Your task to perform on an android device: Open settings Image 0: 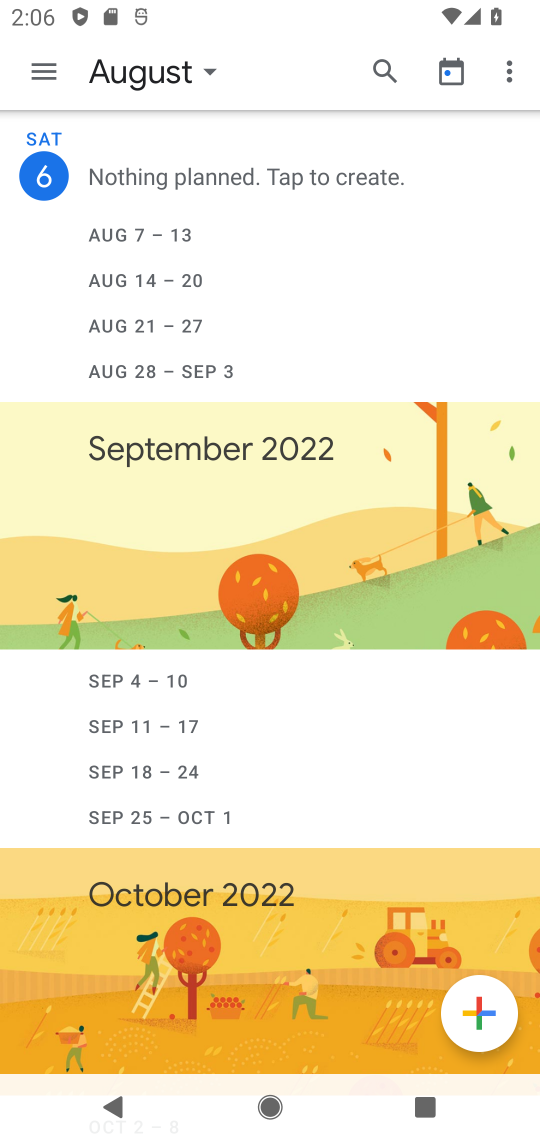
Step 0: press home button
Your task to perform on an android device: Open settings Image 1: 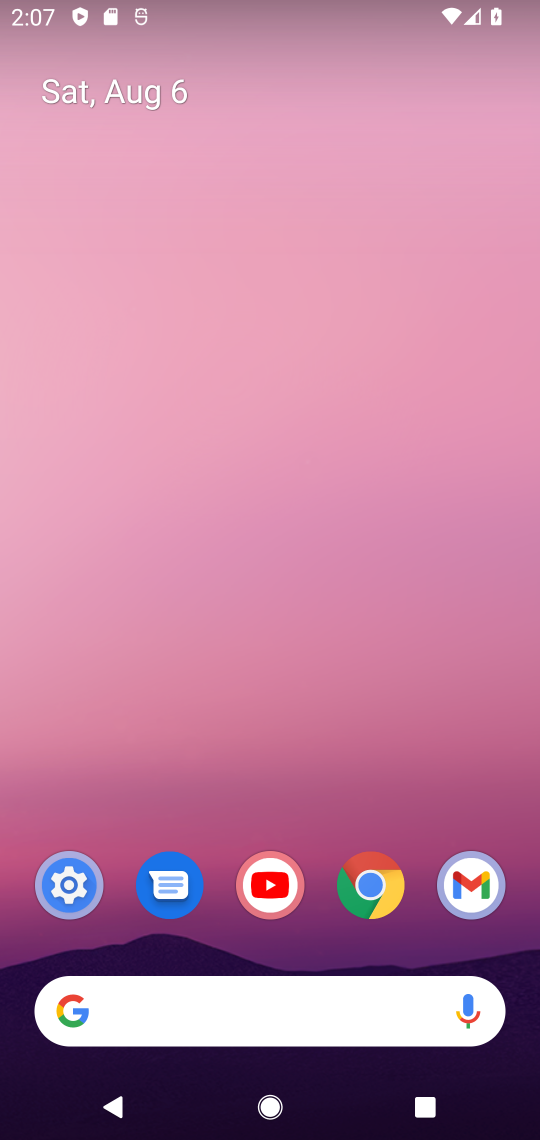
Step 1: drag from (426, 815) to (325, 90)
Your task to perform on an android device: Open settings Image 2: 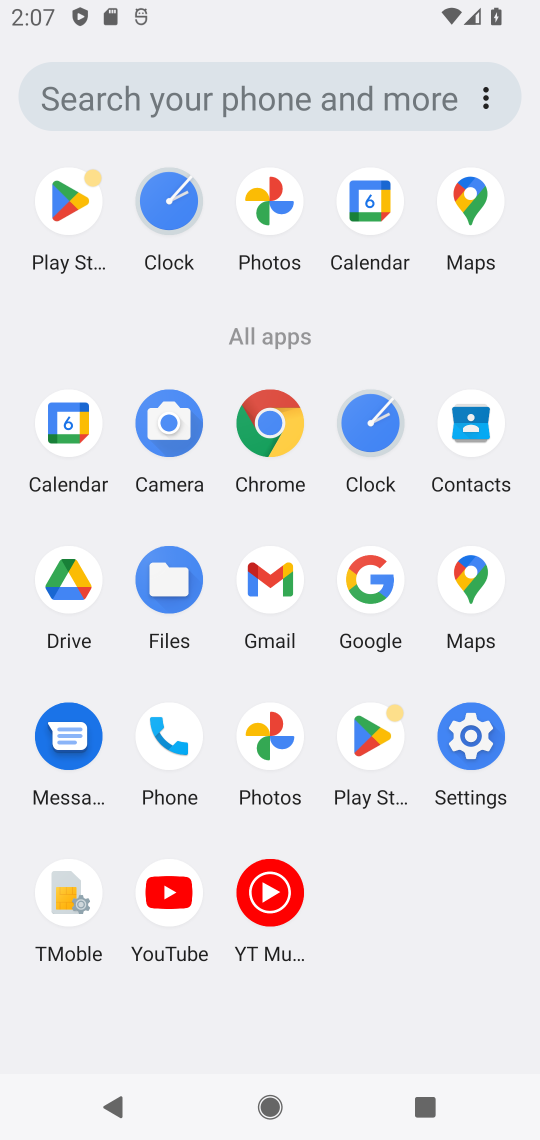
Step 2: click (477, 735)
Your task to perform on an android device: Open settings Image 3: 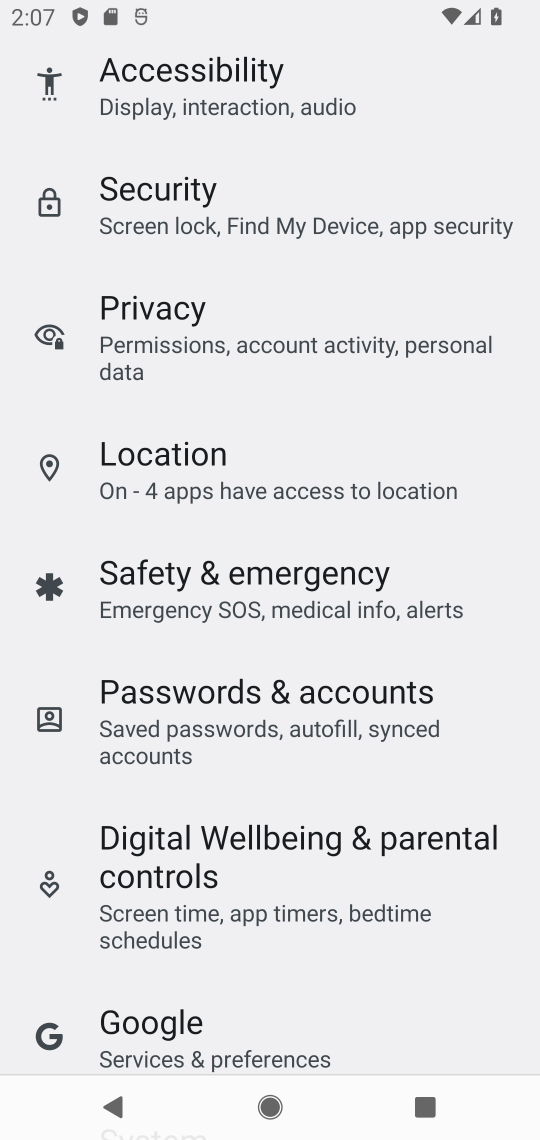
Step 3: task complete